Your task to perform on an android device: change the clock display to analog Image 0: 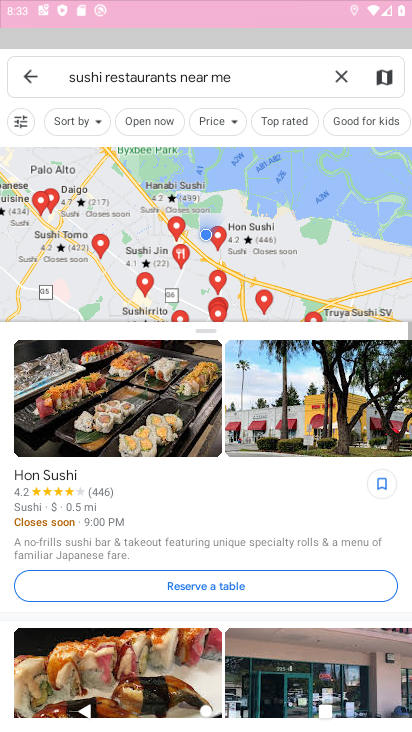
Step 0: click (62, 373)
Your task to perform on an android device: change the clock display to analog Image 1: 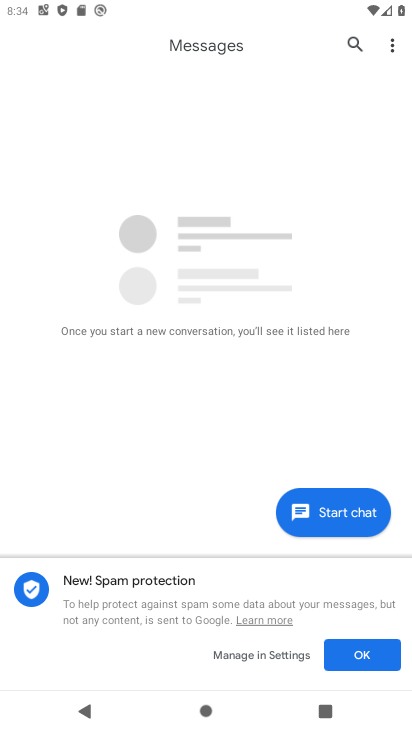
Step 1: press home button
Your task to perform on an android device: change the clock display to analog Image 2: 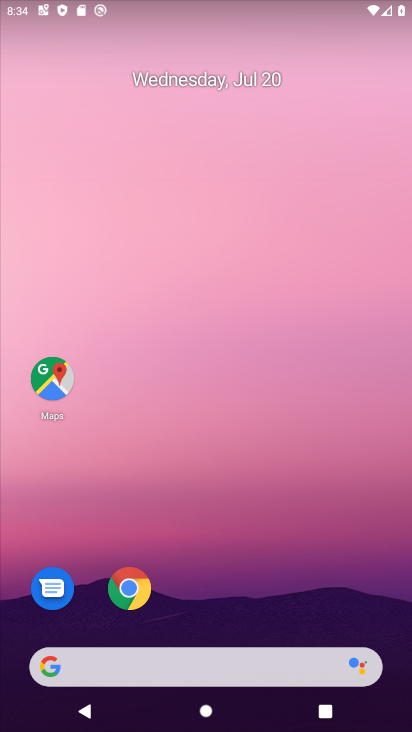
Step 2: drag from (246, 589) to (202, 151)
Your task to perform on an android device: change the clock display to analog Image 3: 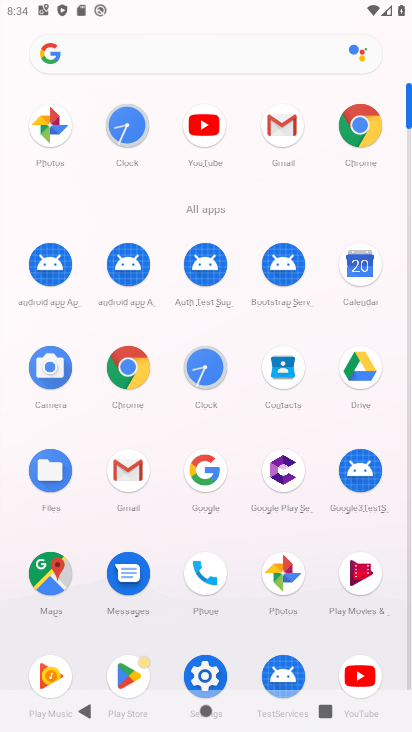
Step 3: click (131, 130)
Your task to perform on an android device: change the clock display to analog Image 4: 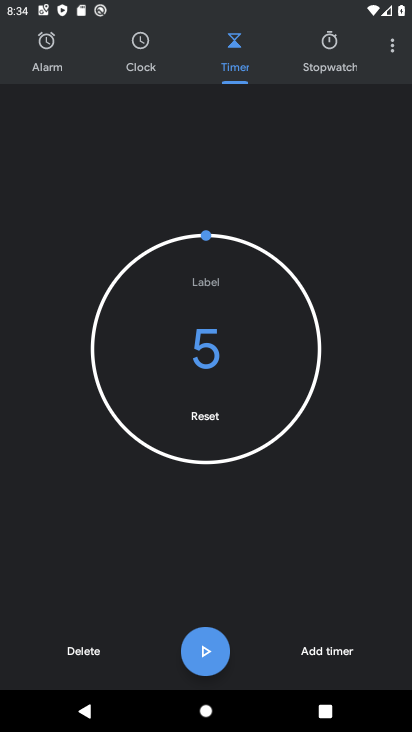
Step 4: click (396, 62)
Your task to perform on an android device: change the clock display to analog Image 5: 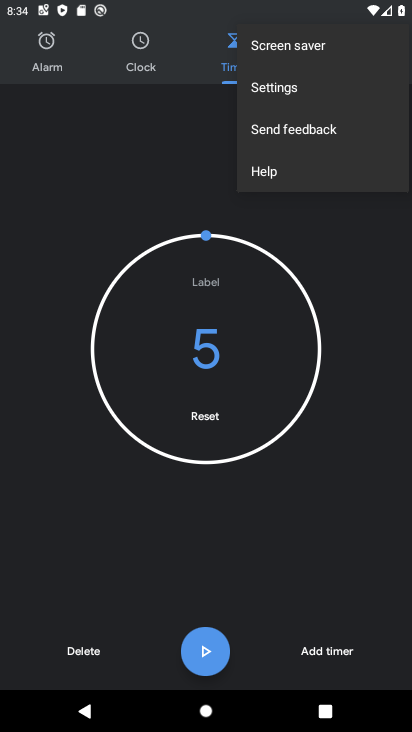
Step 5: click (306, 86)
Your task to perform on an android device: change the clock display to analog Image 6: 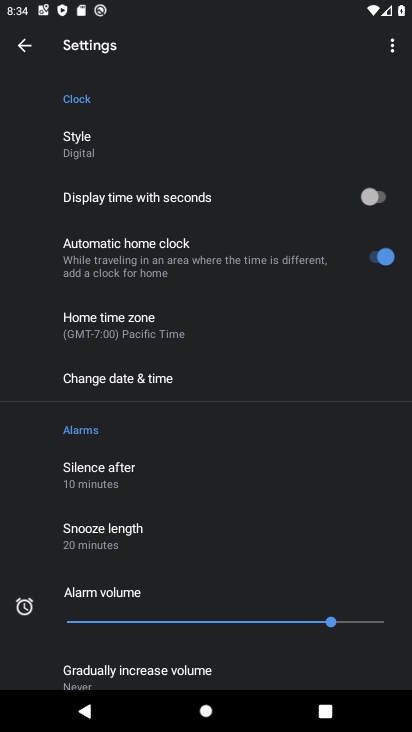
Step 6: click (93, 136)
Your task to perform on an android device: change the clock display to analog Image 7: 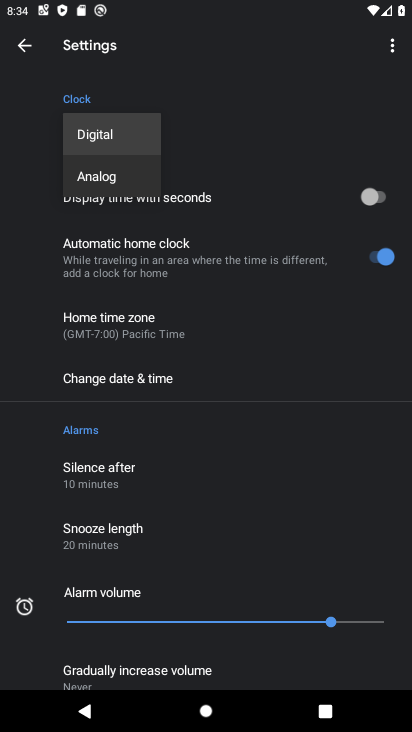
Step 7: click (109, 172)
Your task to perform on an android device: change the clock display to analog Image 8: 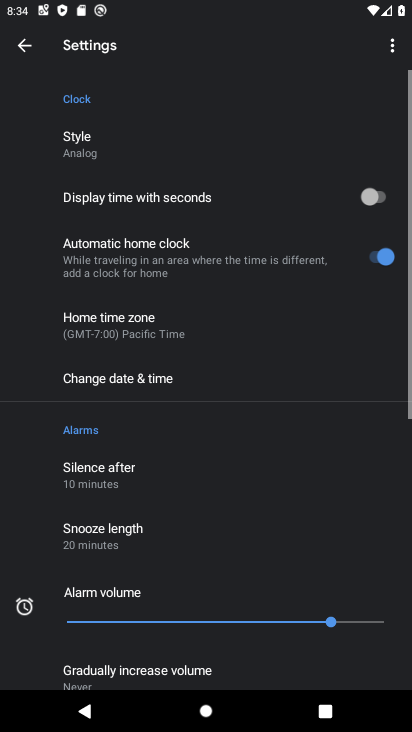
Step 8: task complete